Your task to perform on an android device: What's US dollar exchange rate against the British Pound? Image 0: 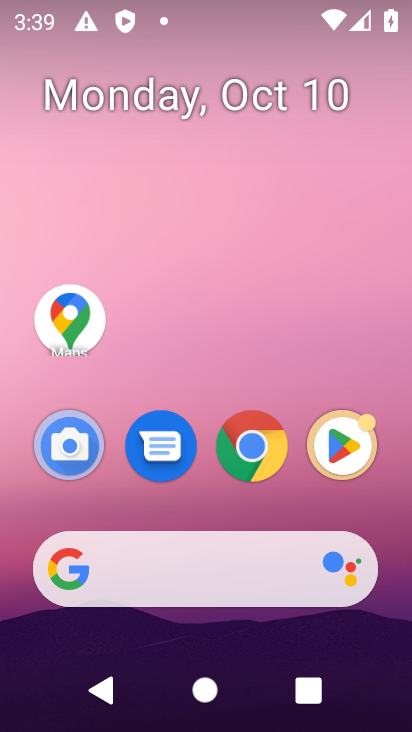
Step 0: click (135, 577)
Your task to perform on an android device: What's US dollar exchange rate against the British Pound? Image 1: 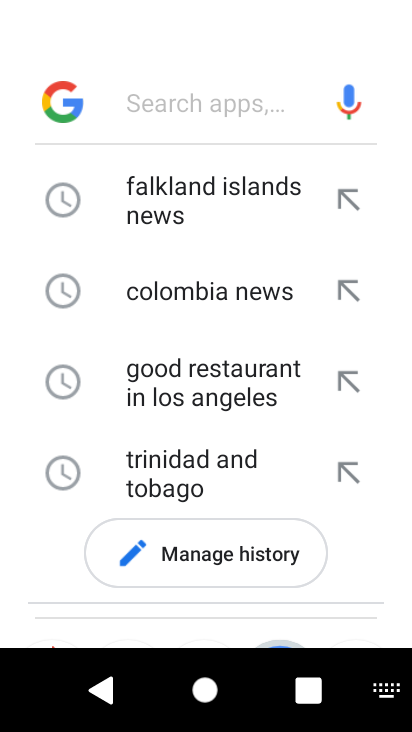
Step 1: type "US dollar exchange rate against the British Pound"
Your task to perform on an android device: What's US dollar exchange rate against the British Pound? Image 2: 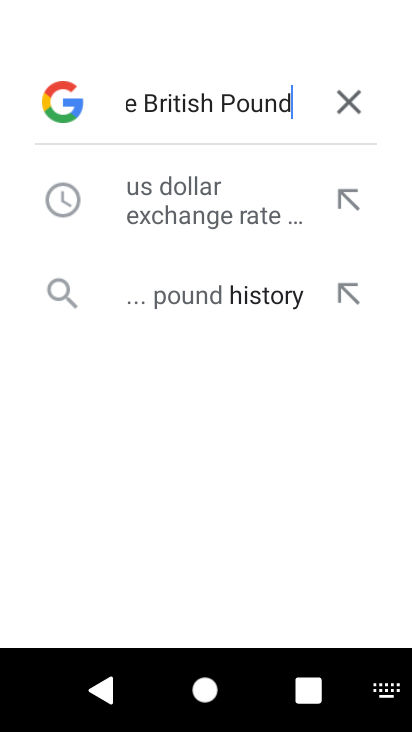
Step 2: type ""
Your task to perform on an android device: What's US dollar exchange rate against the British Pound? Image 3: 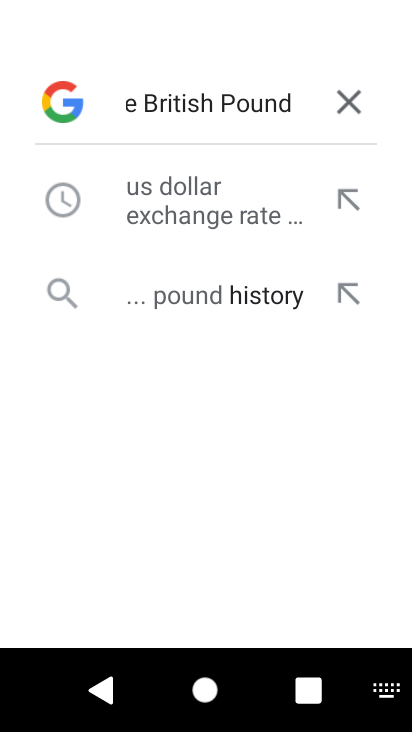
Step 3: click (198, 189)
Your task to perform on an android device: What's US dollar exchange rate against the British Pound? Image 4: 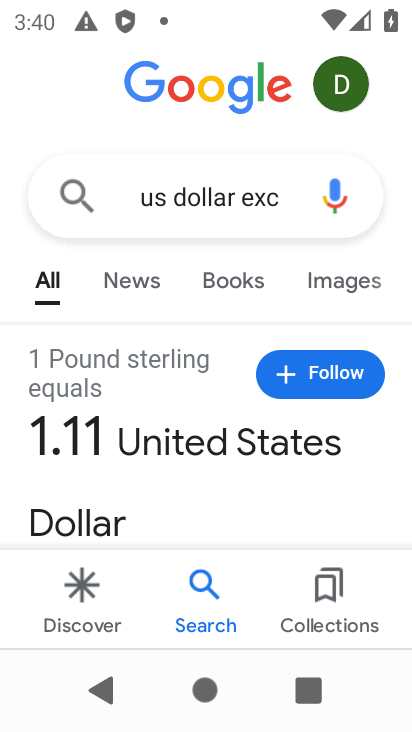
Step 4: task complete